Your task to perform on an android device: turn on wifi Image 0: 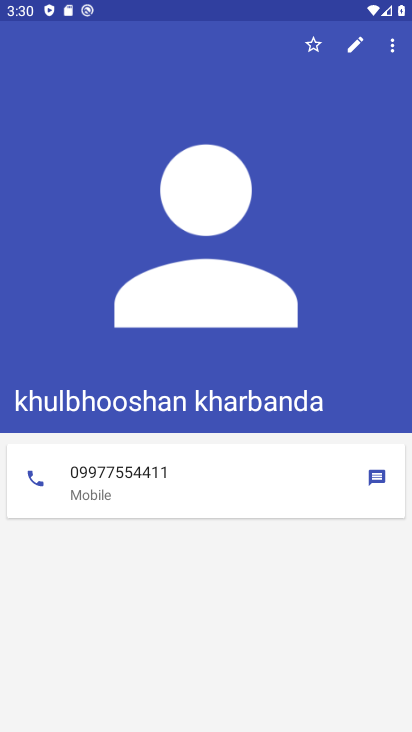
Step 0: press home button
Your task to perform on an android device: turn on wifi Image 1: 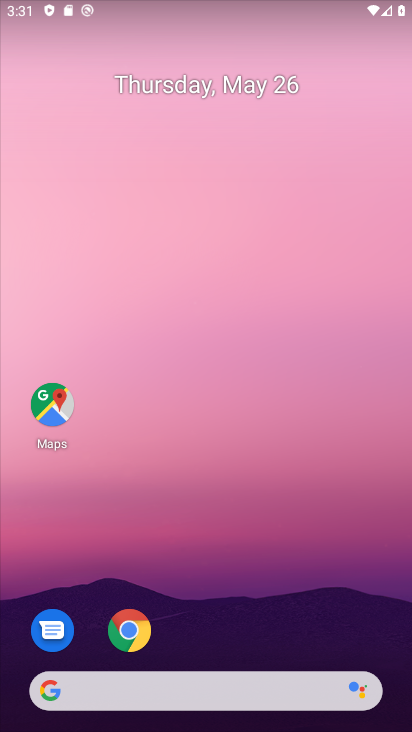
Step 1: drag from (238, 576) to (218, 97)
Your task to perform on an android device: turn on wifi Image 2: 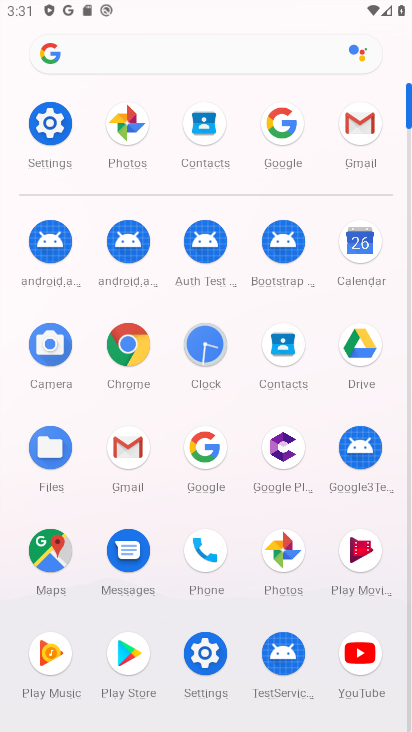
Step 2: click (51, 123)
Your task to perform on an android device: turn on wifi Image 3: 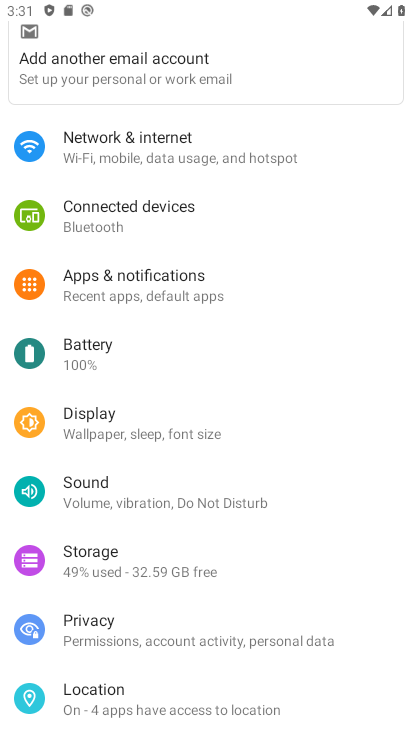
Step 3: click (138, 156)
Your task to perform on an android device: turn on wifi Image 4: 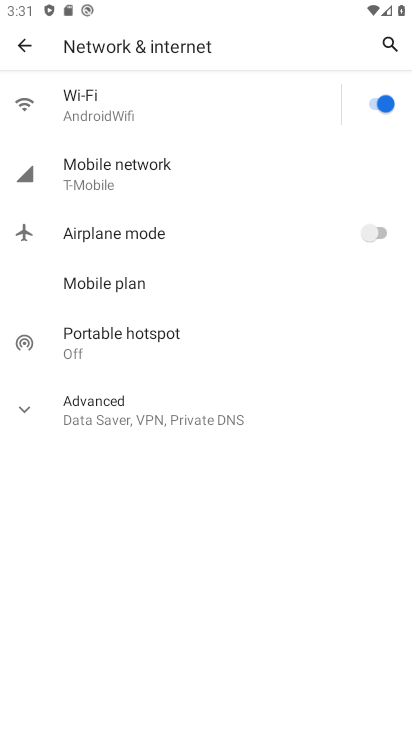
Step 4: task complete